Your task to perform on an android device: Go to Yahoo.com Image 0: 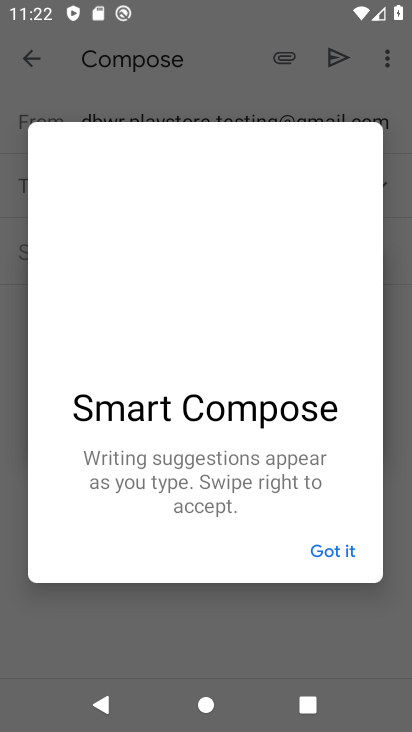
Step 0: press home button
Your task to perform on an android device: Go to Yahoo.com Image 1: 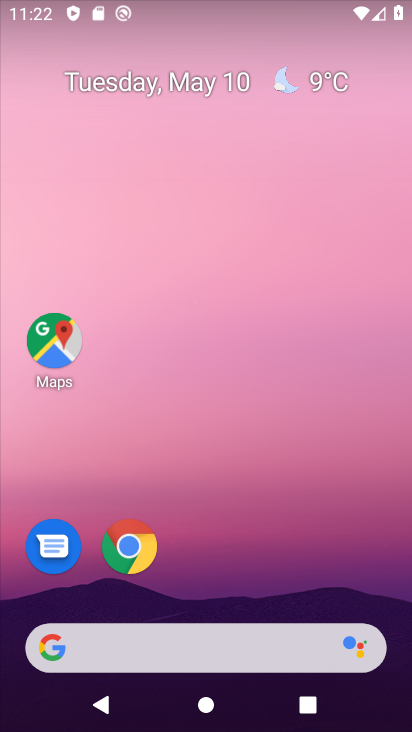
Step 1: click (125, 545)
Your task to perform on an android device: Go to Yahoo.com Image 2: 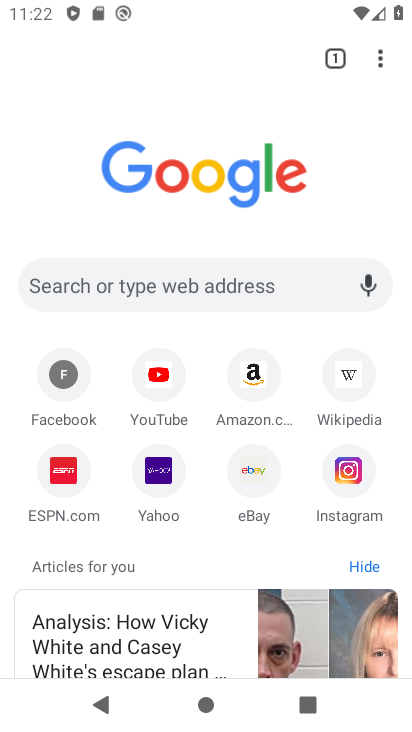
Step 2: click (173, 474)
Your task to perform on an android device: Go to Yahoo.com Image 3: 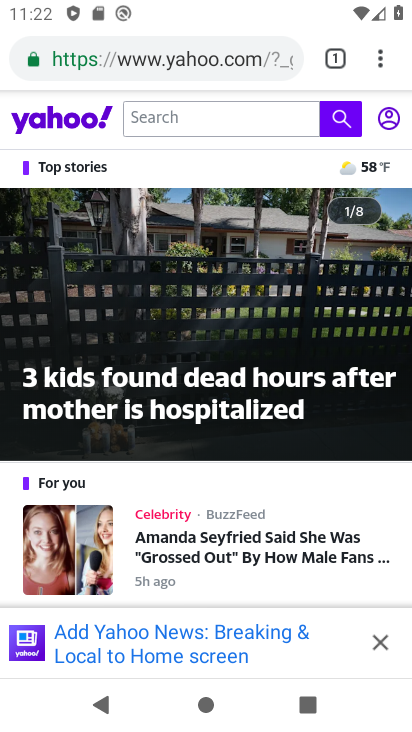
Step 3: task complete